Your task to perform on an android device: Is it going to rain today? Image 0: 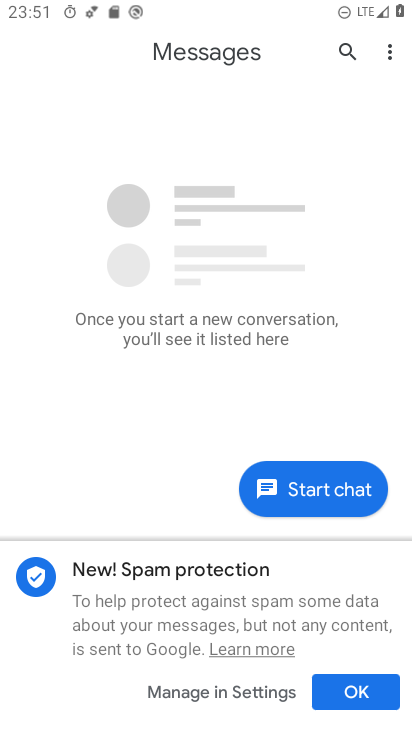
Step 0: press home button
Your task to perform on an android device: Is it going to rain today? Image 1: 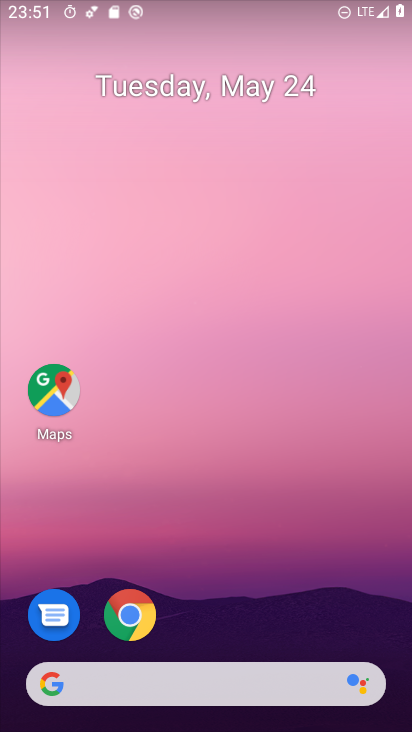
Step 1: drag from (221, 682) to (267, 29)
Your task to perform on an android device: Is it going to rain today? Image 2: 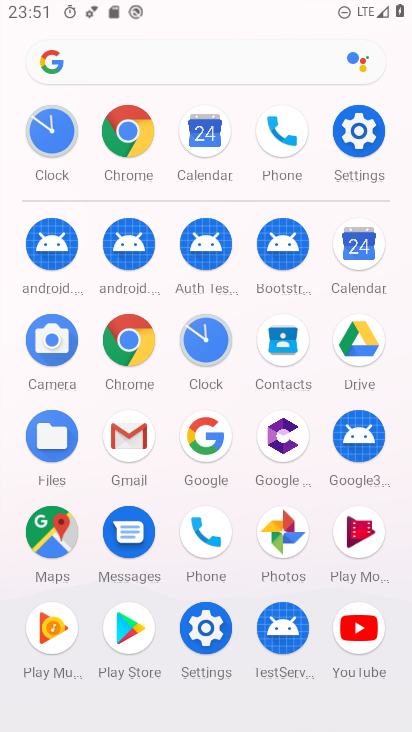
Step 2: click (170, 76)
Your task to perform on an android device: Is it going to rain today? Image 3: 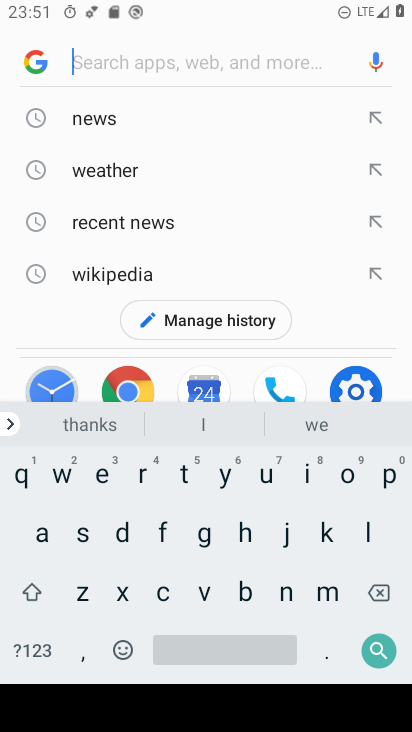
Step 3: click (139, 469)
Your task to perform on an android device: Is it going to rain today? Image 4: 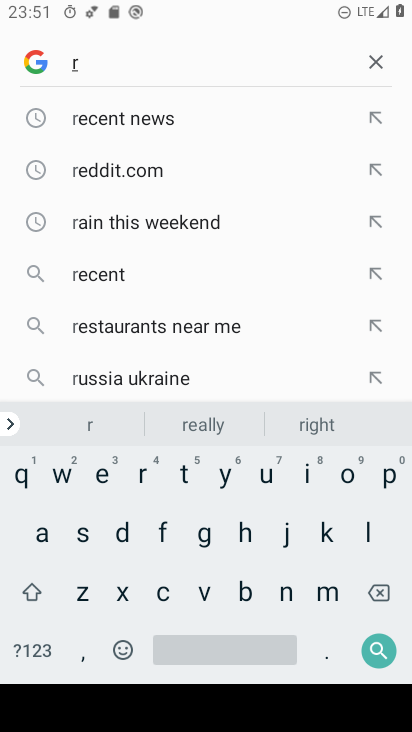
Step 4: click (34, 536)
Your task to perform on an android device: Is it going to rain today? Image 5: 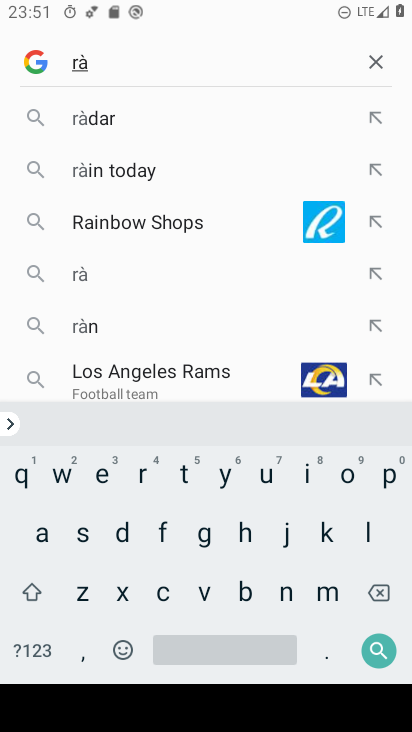
Step 5: click (145, 161)
Your task to perform on an android device: Is it going to rain today? Image 6: 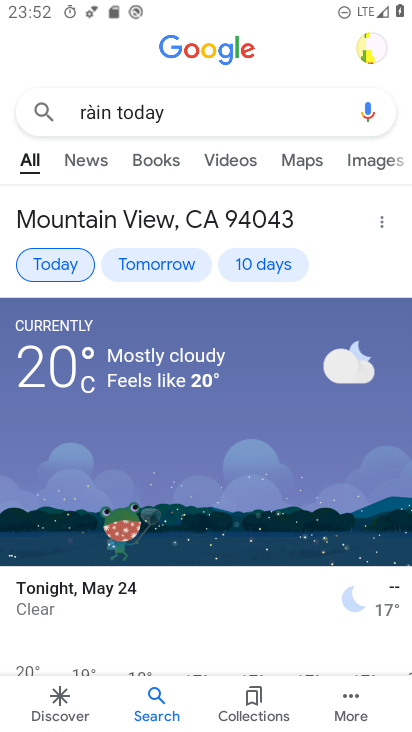
Step 6: task complete